Your task to perform on an android device: open app "Nova Launcher" (install if not already installed) Image 0: 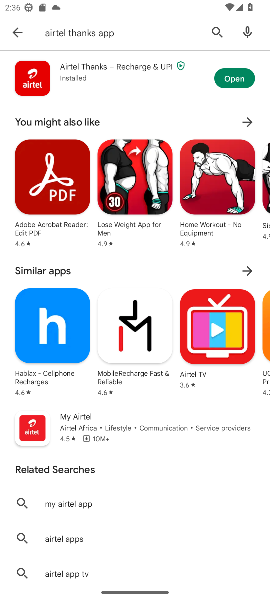
Step 0: press home button
Your task to perform on an android device: open app "Nova Launcher" (install if not already installed) Image 1: 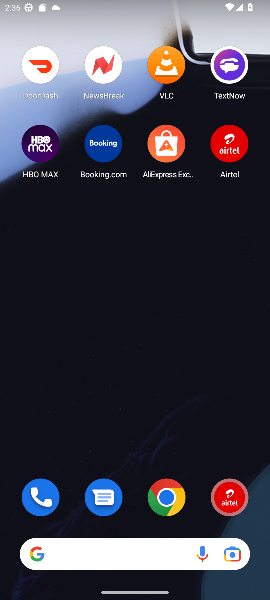
Step 1: drag from (89, 543) to (102, 208)
Your task to perform on an android device: open app "Nova Launcher" (install if not already installed) Image 2: 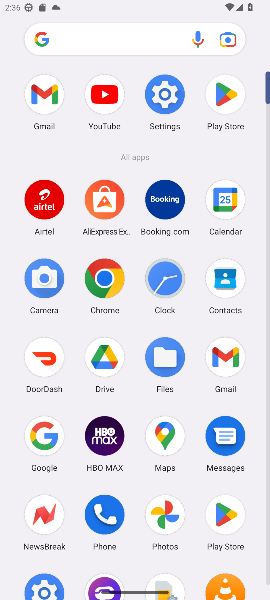
Step 2: click (224, 91)
Your task to perform on an android device: open app "Nova Launcher" (install if not already installed) Image 3: 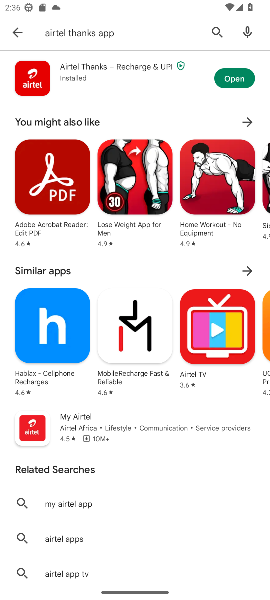
Step 3: click (24, 29)
Your task to perform on an android device: open app "Nova Launcher" (install if not already installed) Image 4: 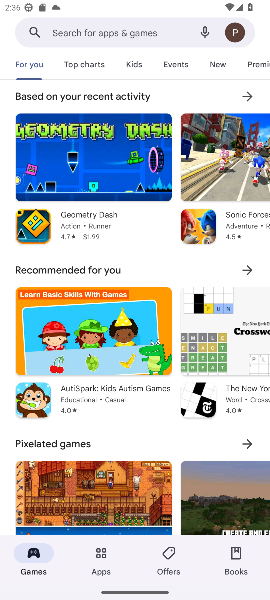
Step 4: click (106, 23)
Your task to perform on an android device: open app "Nova Launcher" (install if not already installed) Image 5: 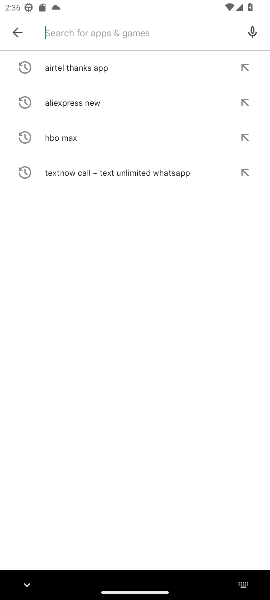
Step 5: type "Nova Launcher "
Your task to perform on an android device: open app "Nova Launcher" (install if not already installed) Image 6: 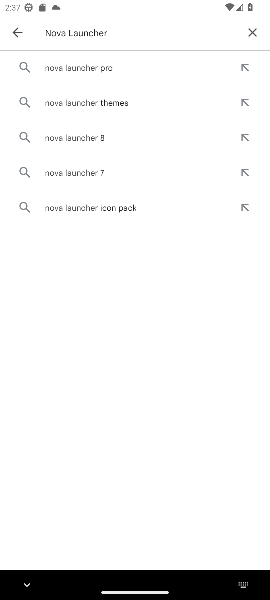
Step 6: click (82, 70)
Your task to perform on an android device: open app "Nova Launcher" (install if not already installed) Image 7: 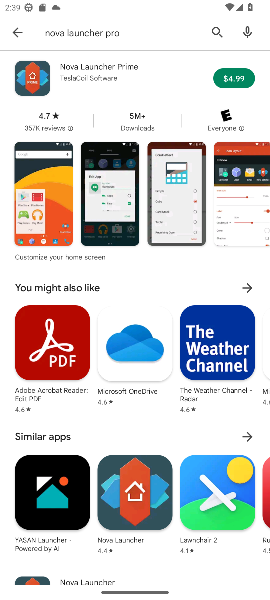
Step 7: task complete